Your task to perform on an android device: Add "logitech g910" to the cart on newegg.com Image 0: 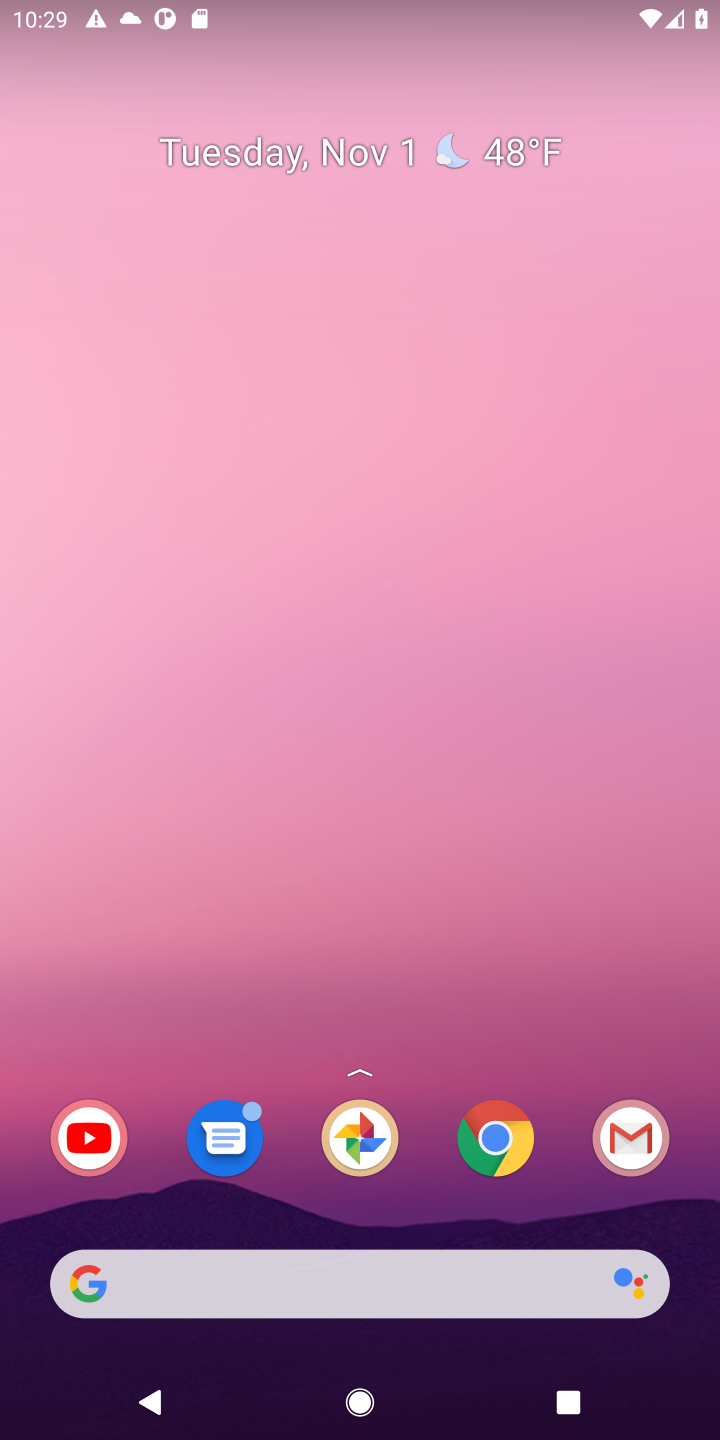
Step 0: press home button
Your task to perform on an android device: Add "logitech g910" to the cart on newegg.com Image 1: 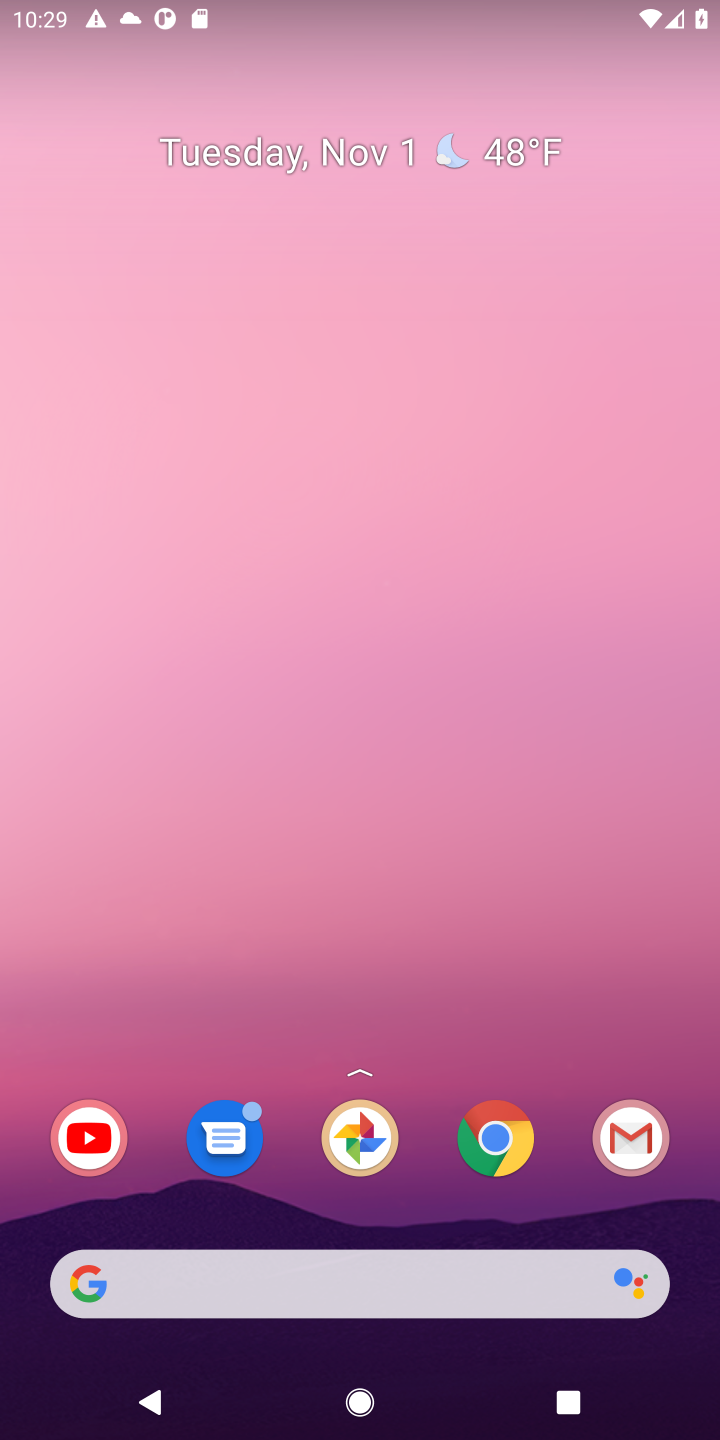
Step 1: drag from (421, 1076) to (501, 0)
Your task to perform on an android device: Add "logitech g910" to the cart on newegg.com Image 2: 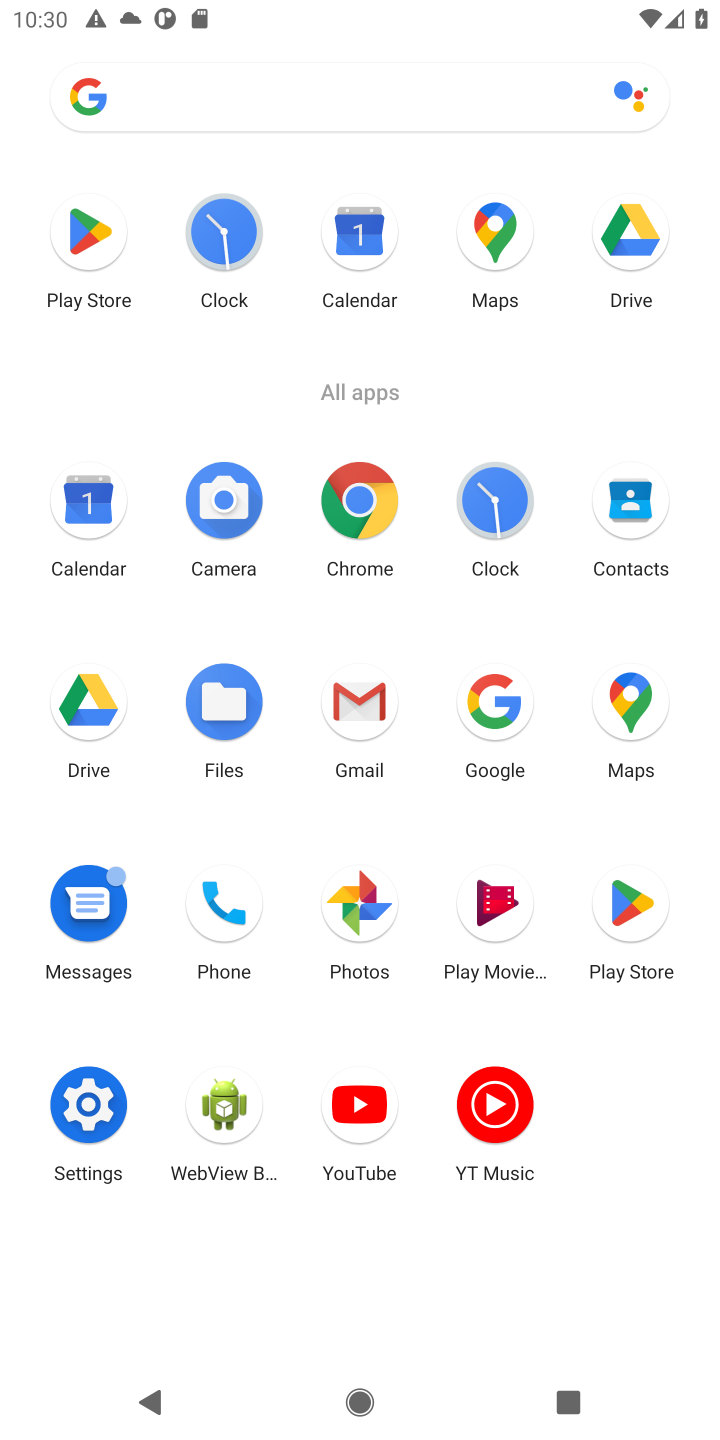
Step 2: click (362, 493)
Your task to perform on an android device: Add "logitech g910" to the cart on newegg.com Image 3: 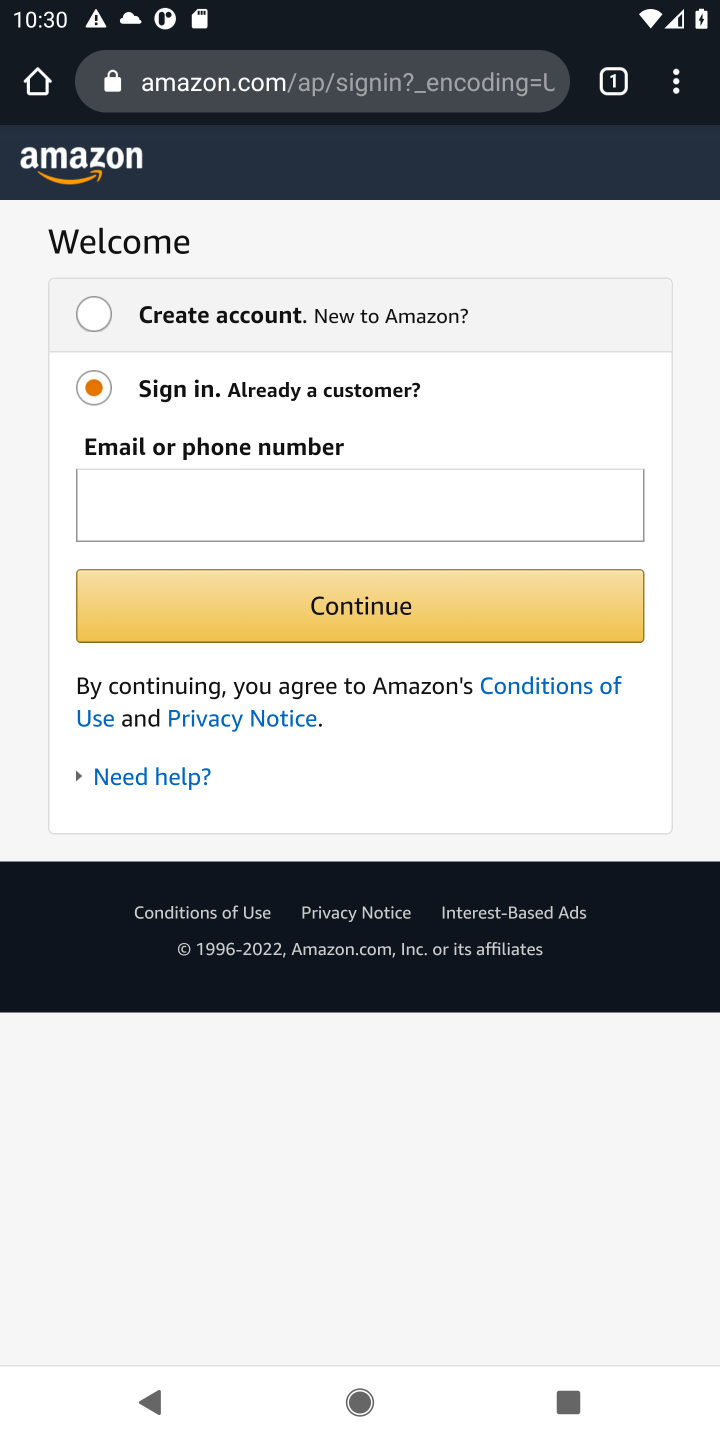
Step 3: click (248, 82)
Your task to perform on an android device: Add "logitech g910" to the cart on newegg.com Image 4: 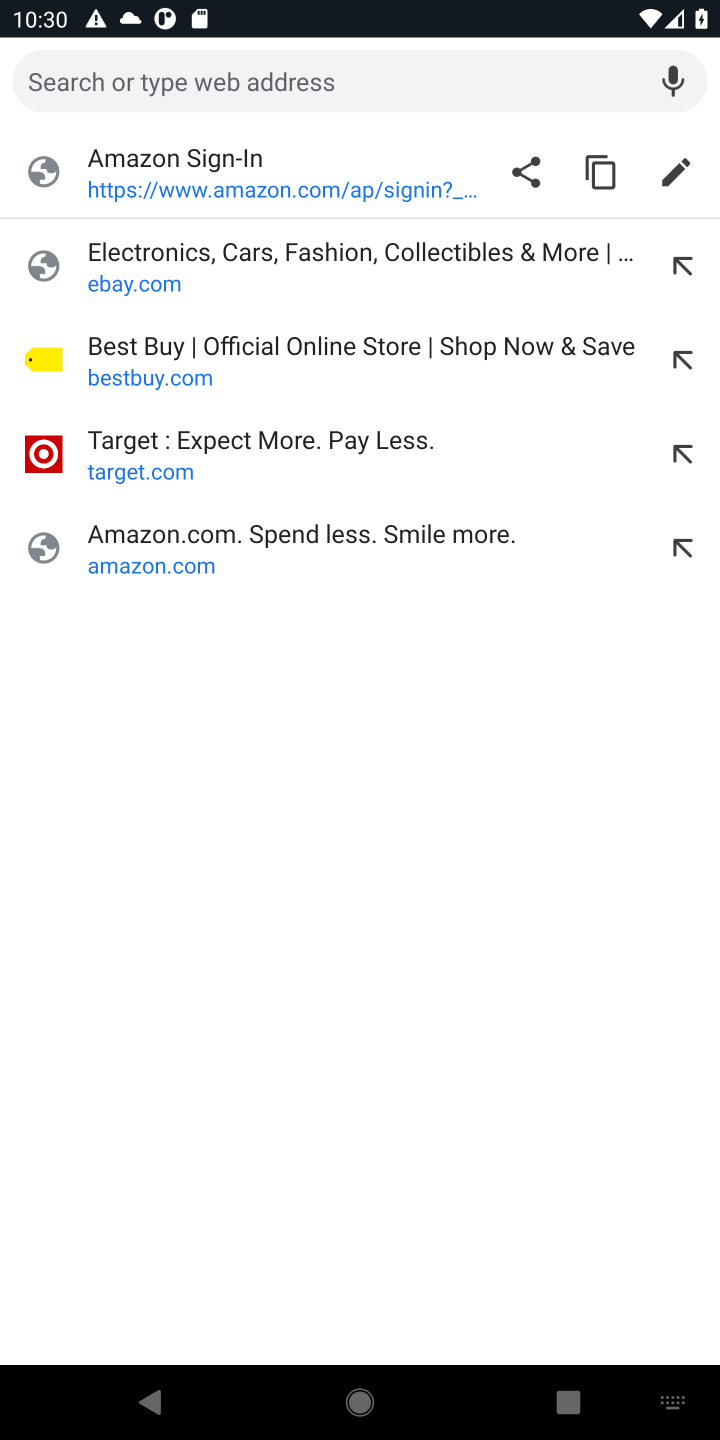
Step 4: type "newegg.com"
Your task to perform on an android device: Add "logitech g910" to the cart on newegg.com Image 5: 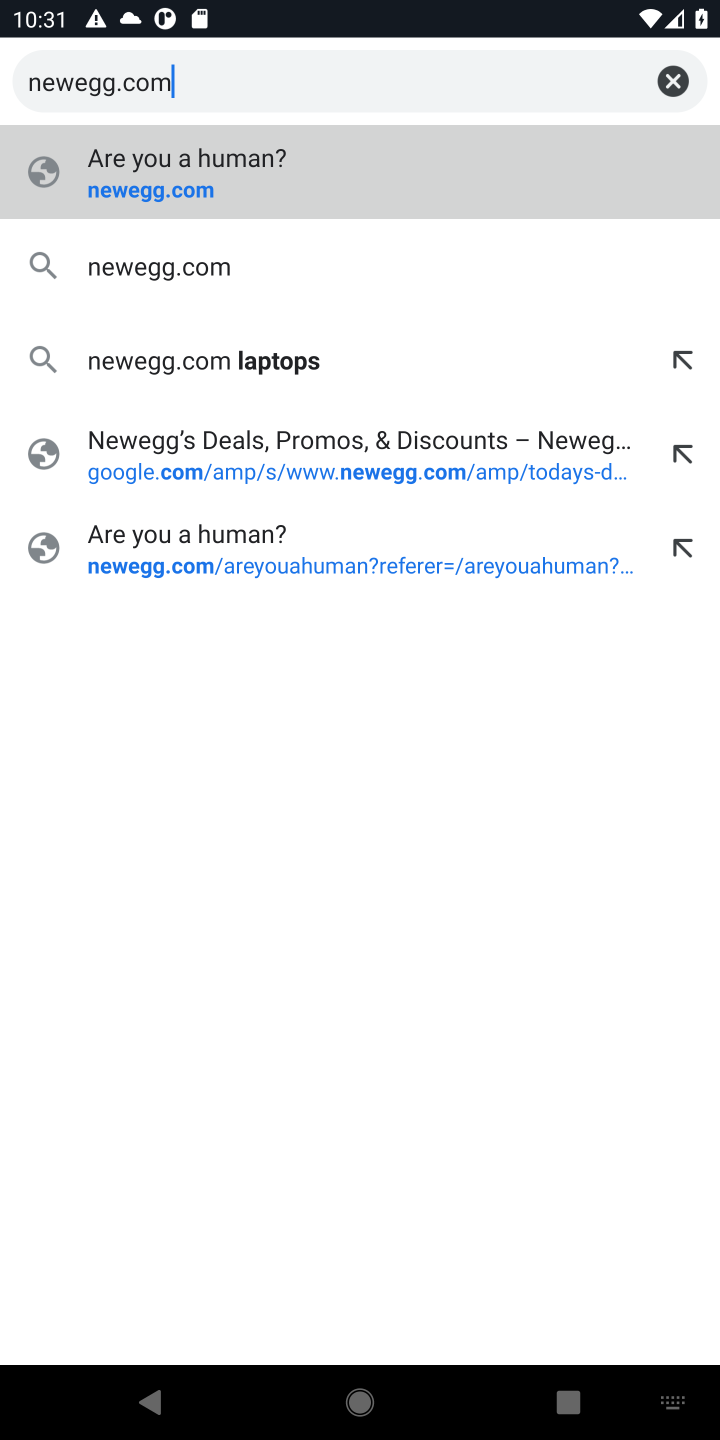
Step 5: click (119, 275)
Your task to perform on an android device: Add "logitech g910" to the cart on newegg.com Image 6: 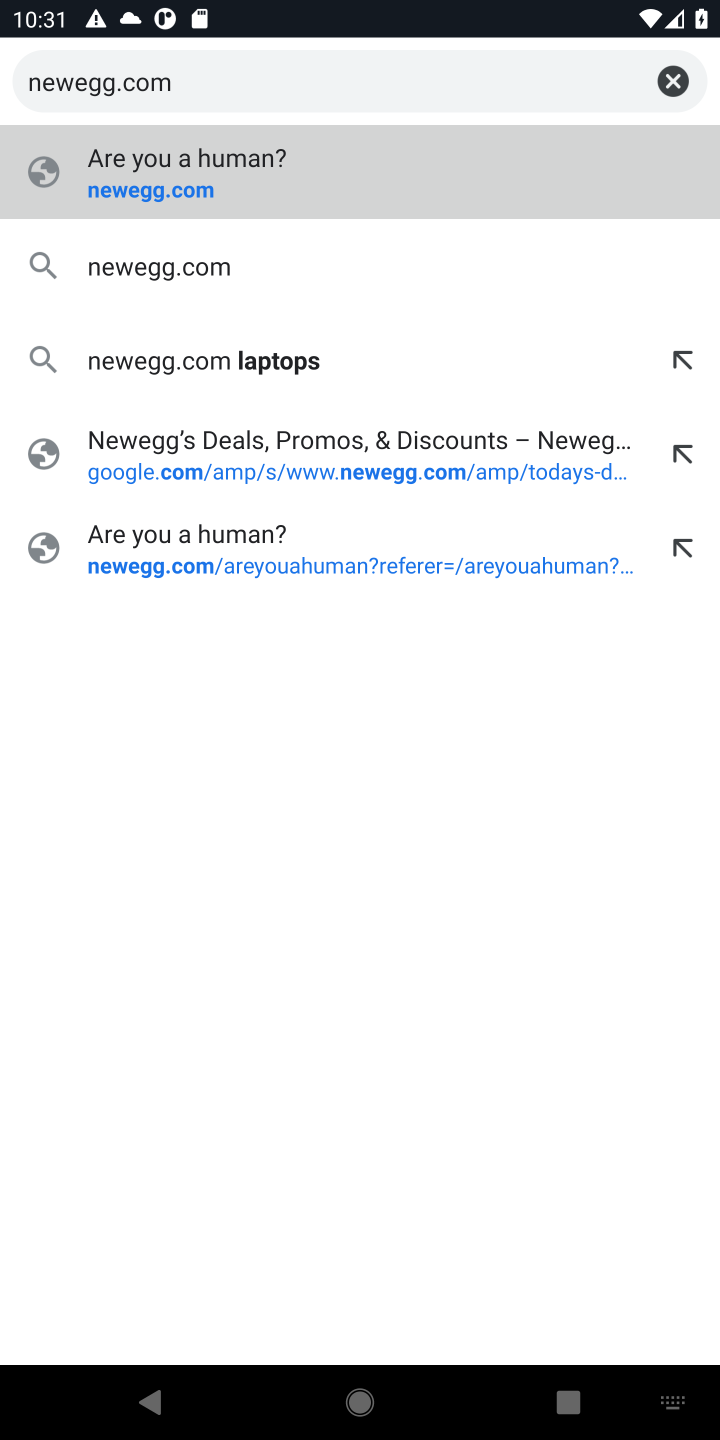
Step 6: click (137, 267)
Your task to perform on an android device: Add "logitech g910" to the cart on newegg.com Image 7: 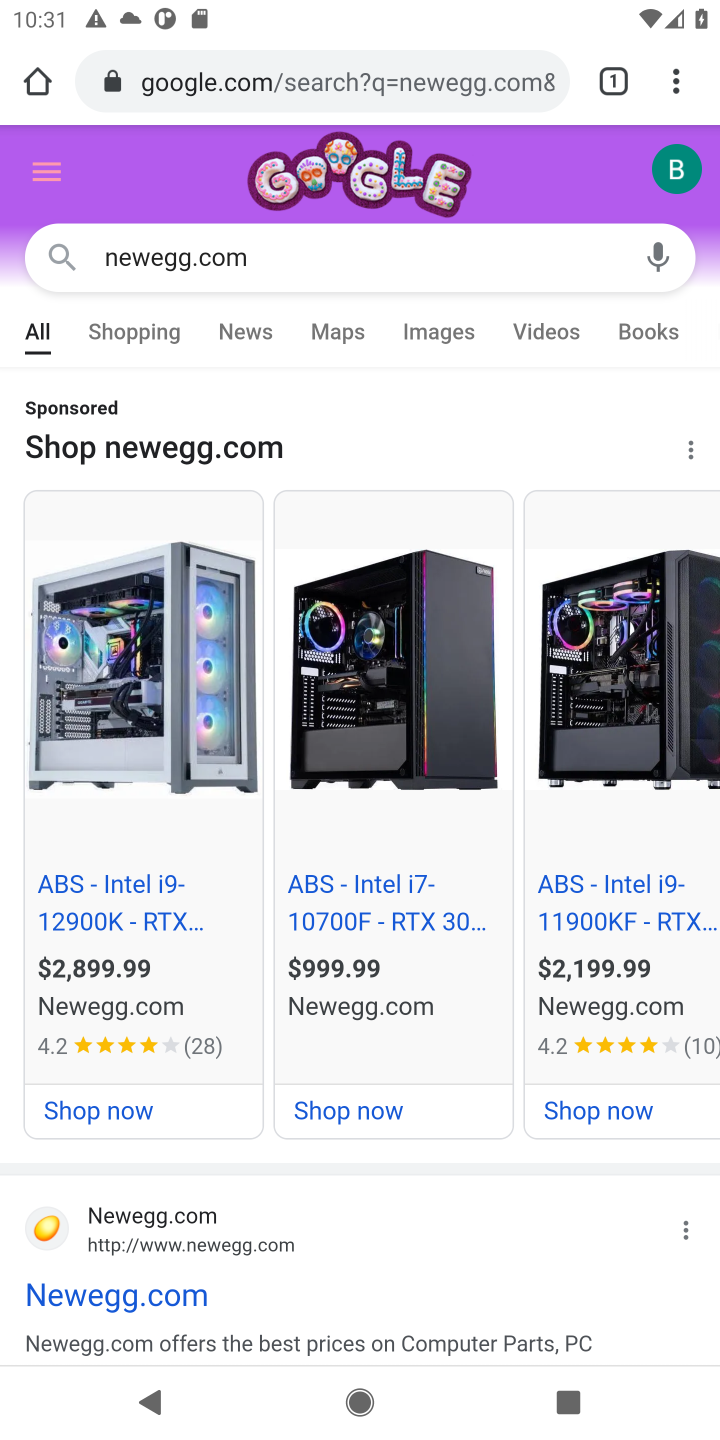
Step 7: drag from (443, 717) to (488, 188)
Your task to perform on an android device: Add "logitech g910" to the cart on newegg.com Image 8: 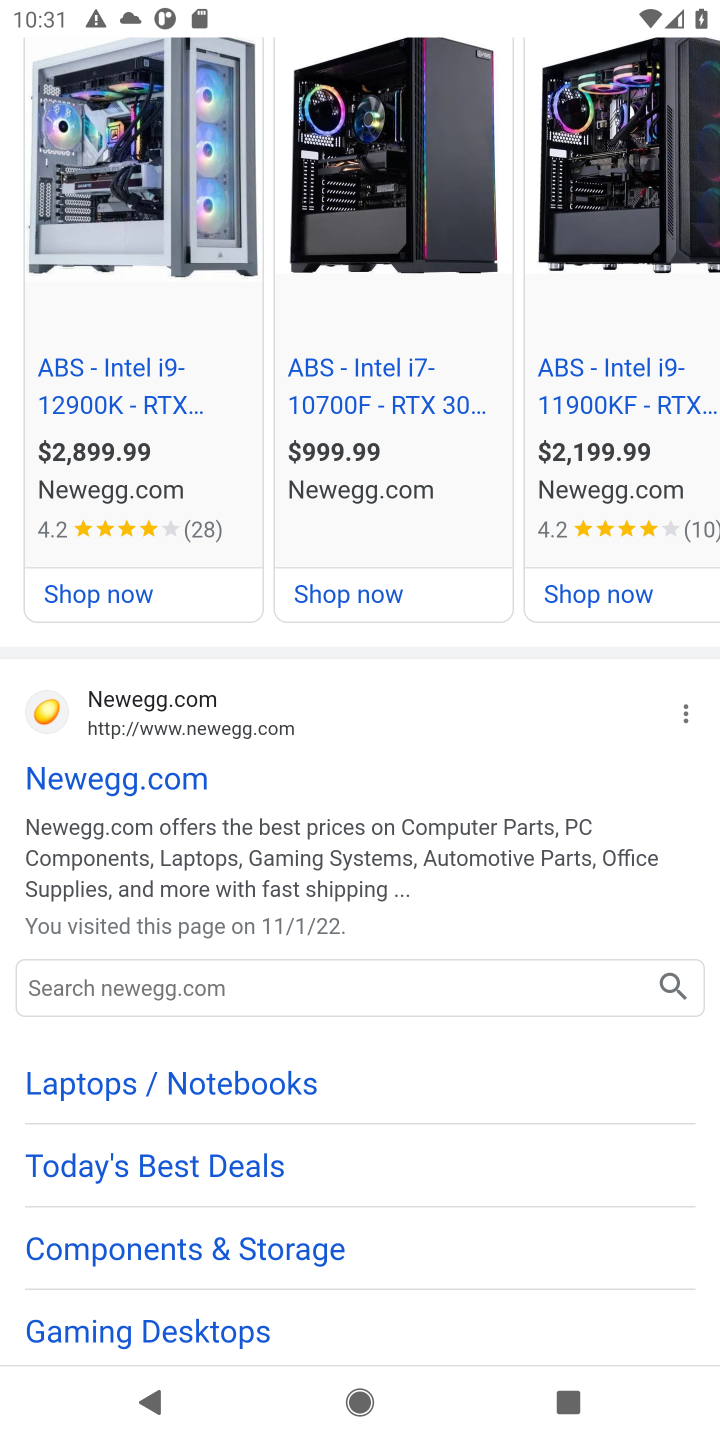
Step 8: drag from (382, 1247) to (390, 434)
Your task to perform on an android device: Add "logitech g910" to the cart on newegg.com Image 9: 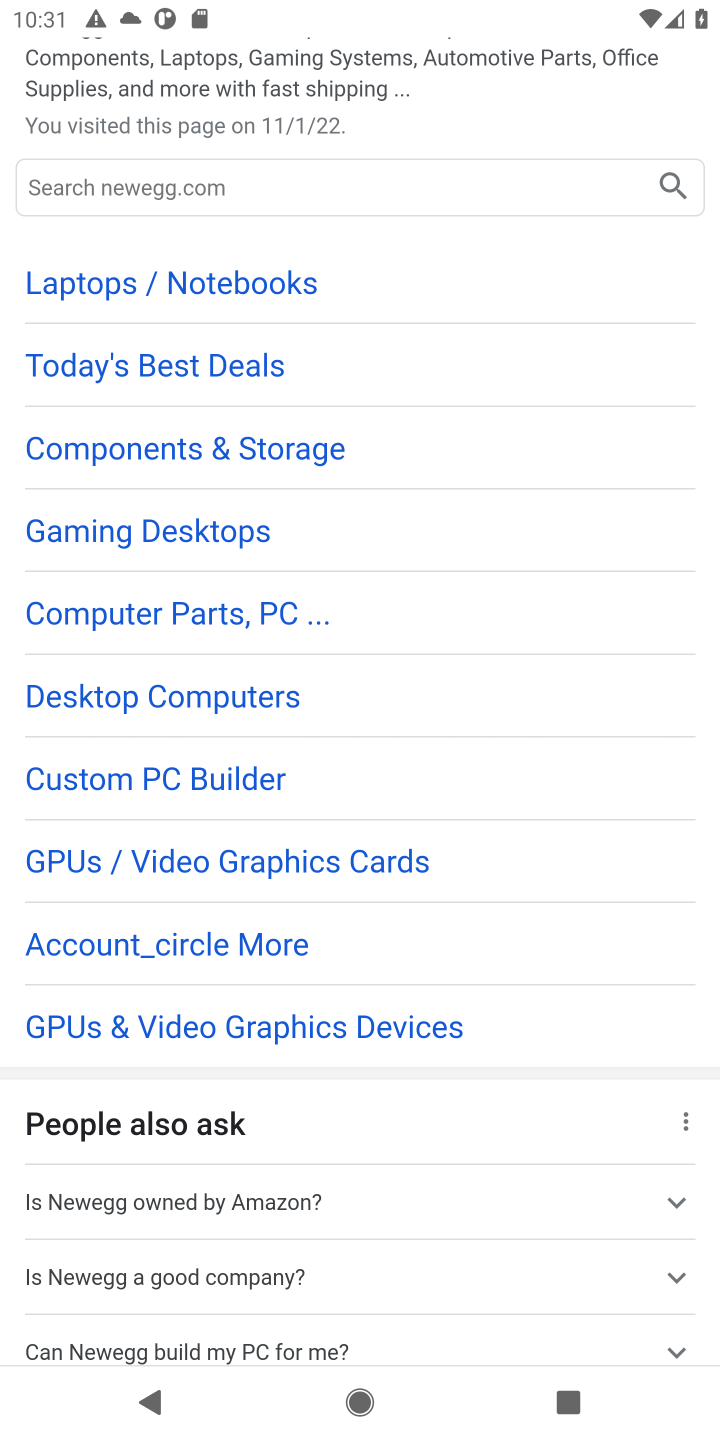
Step 9: drag from (422, 302) to (450, 1111)
Your task to perform on an android device: Add "logitech g910" to the cart on newegg.com Image 10: 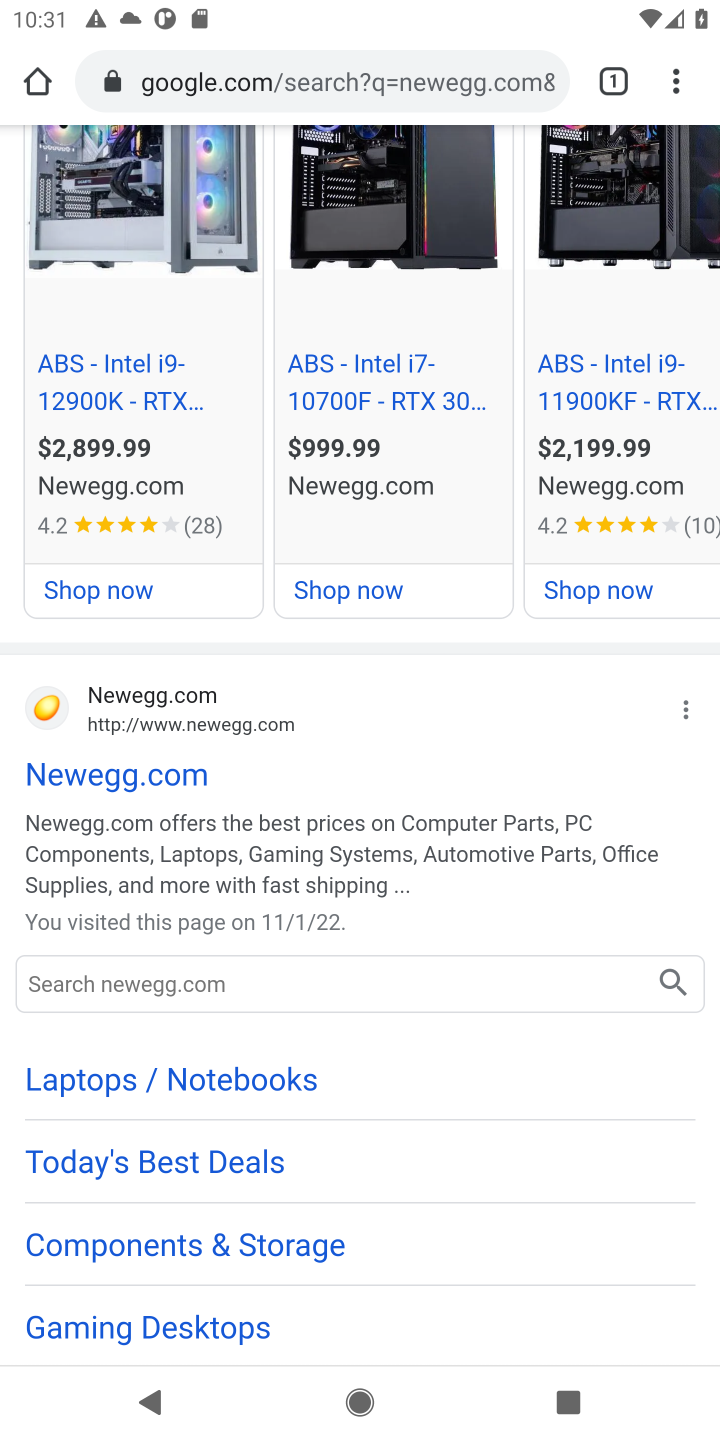
Step 10: click (117, 779)
Your task to perform on an android device: Add "logitech g910" to the cart on newegg.com Image 11: 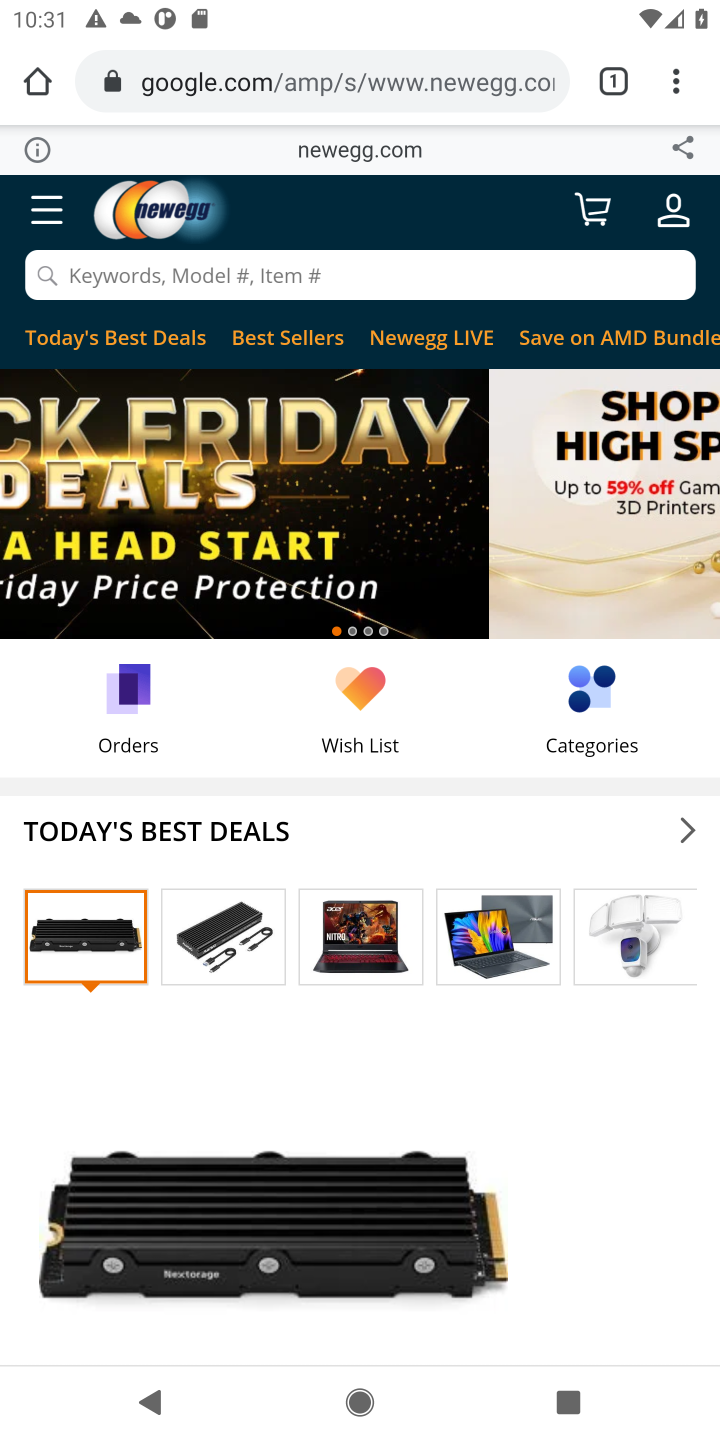
Step 11: click (179, 262)
Your task to perform on an android device: Add "logitech g910" to the cart on newegg.com Image 12: 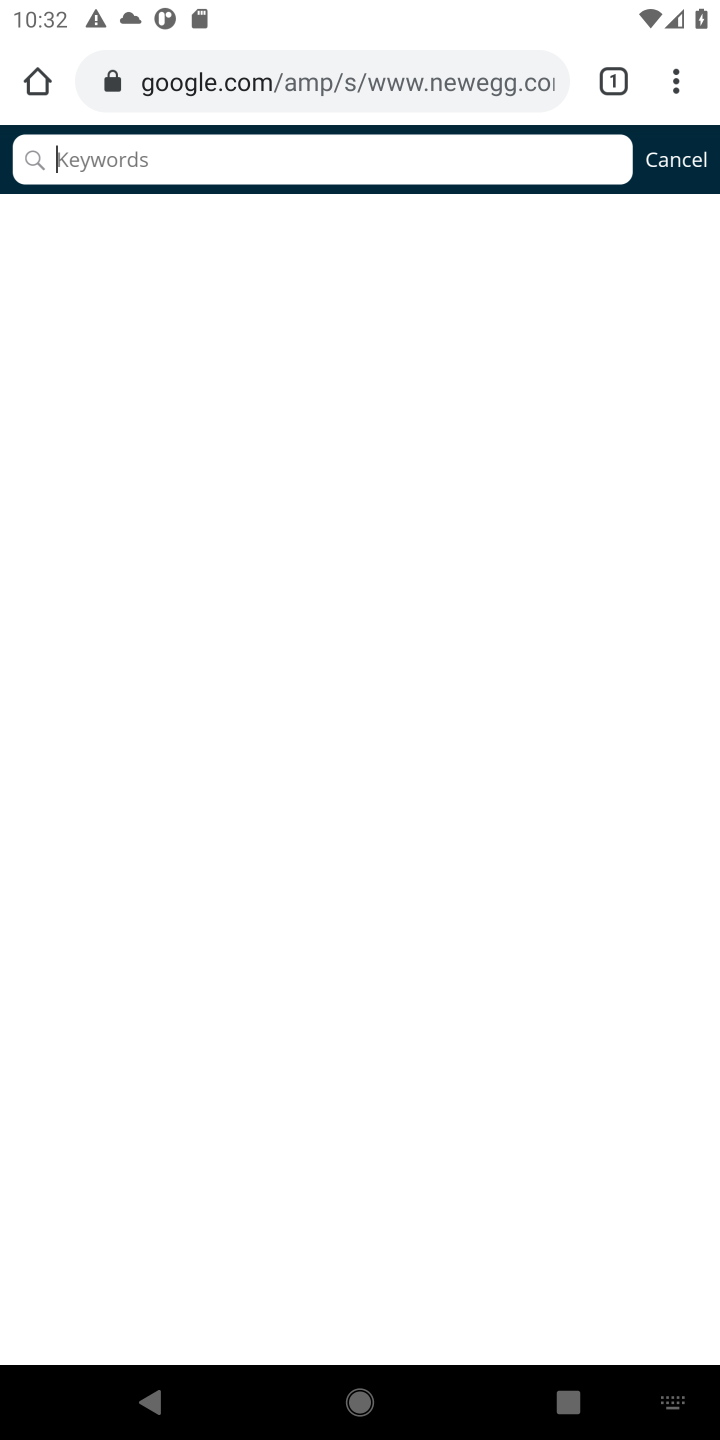
Step 12: type "logitech g910"
Your task to perform on an android device: Add "logitech g910" to the cart on newegg.com Image 13: 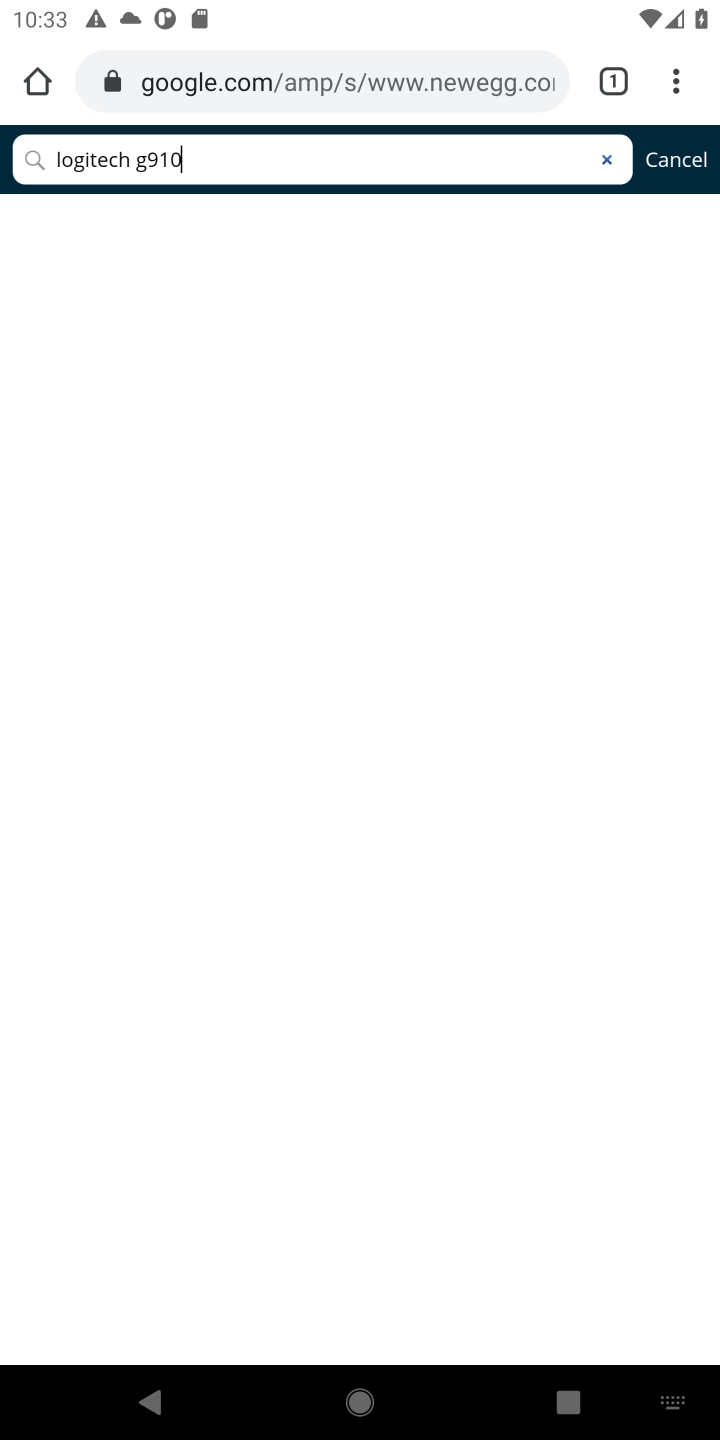
Step 13: task complete